Your task to perform on an android device: snooze an email in the gmail app Image 0: 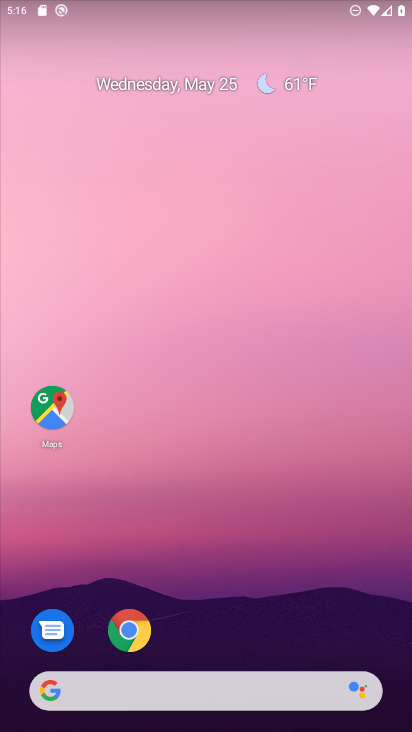
Step 0: drag from (267, 565) to (266, 92)
Your task to perform on an android device: snooze an email in the gmail app Image 1: 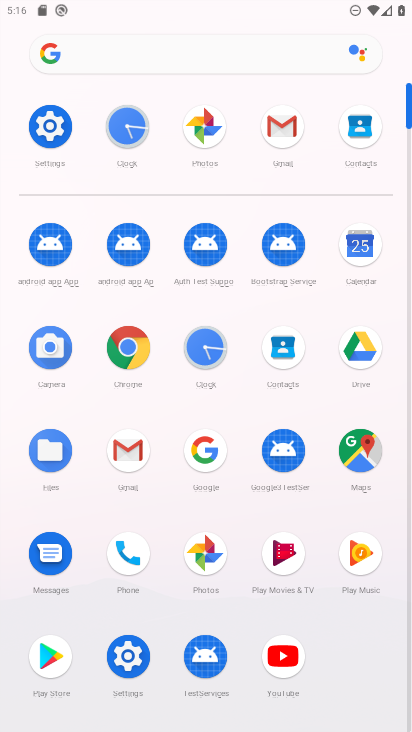
Step 1: click (280, 117)
Your task to perform on an android device: snooze an email in the gmail app Image 2: 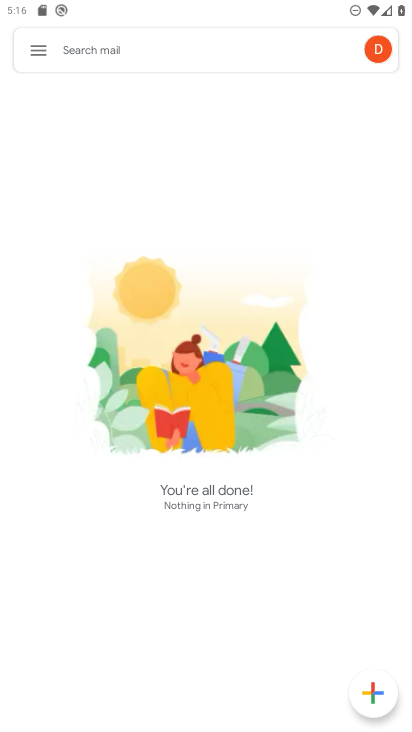
Step 2: click (31, 47)
Your task to perform on an android device: snooze an email in the gmail app Image 3: 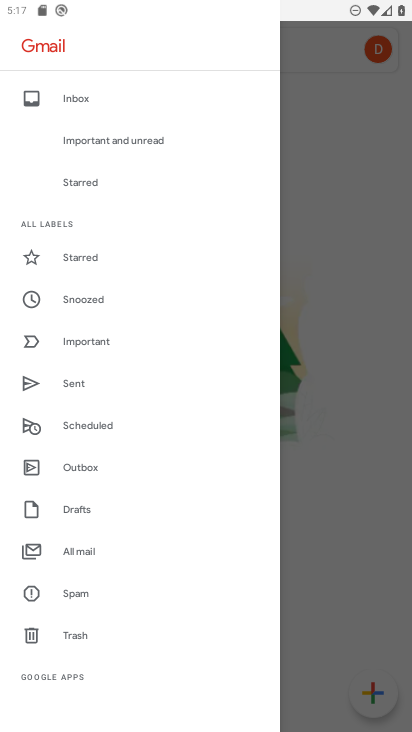
Step 3: click (87, 547)
Your task to perform on an android device: snooze an email in the gmail app Image 4: 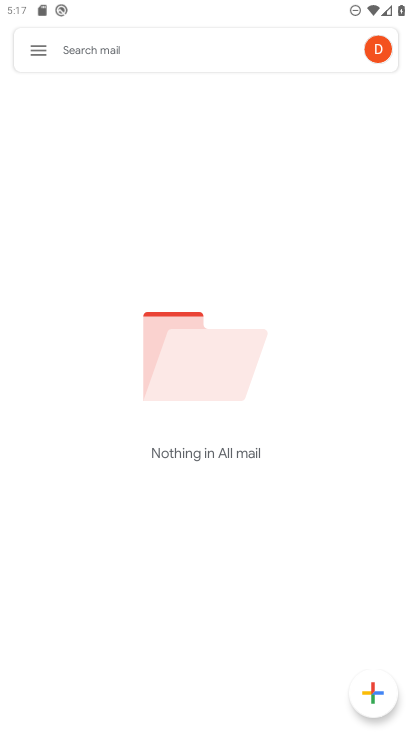
Step 4: task complete